Your task to perform on an android device: Go to Android settings Image 0: 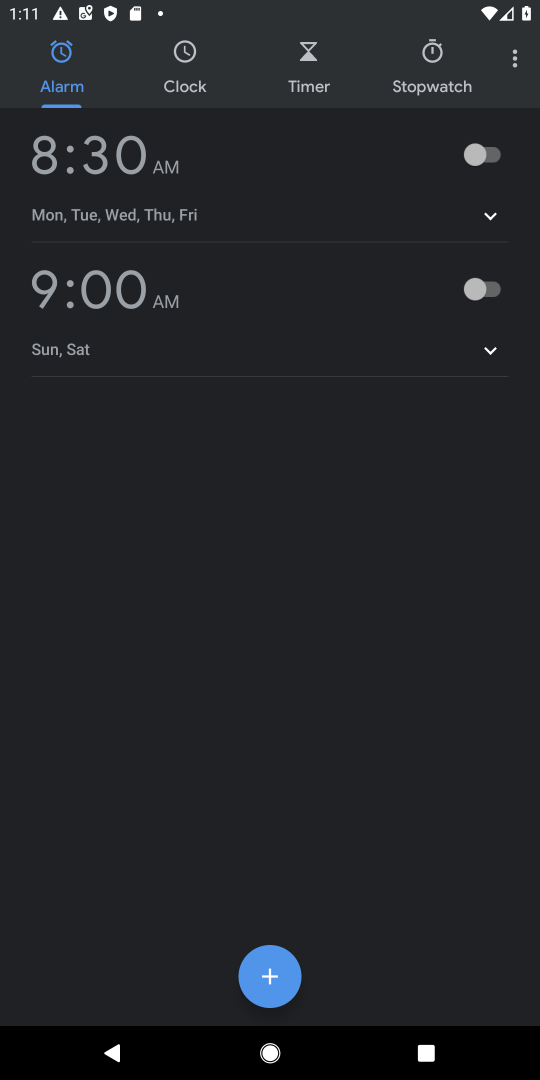
Step 0: press home button
Your task to perform on an android device: Go to Android settings Image 1: 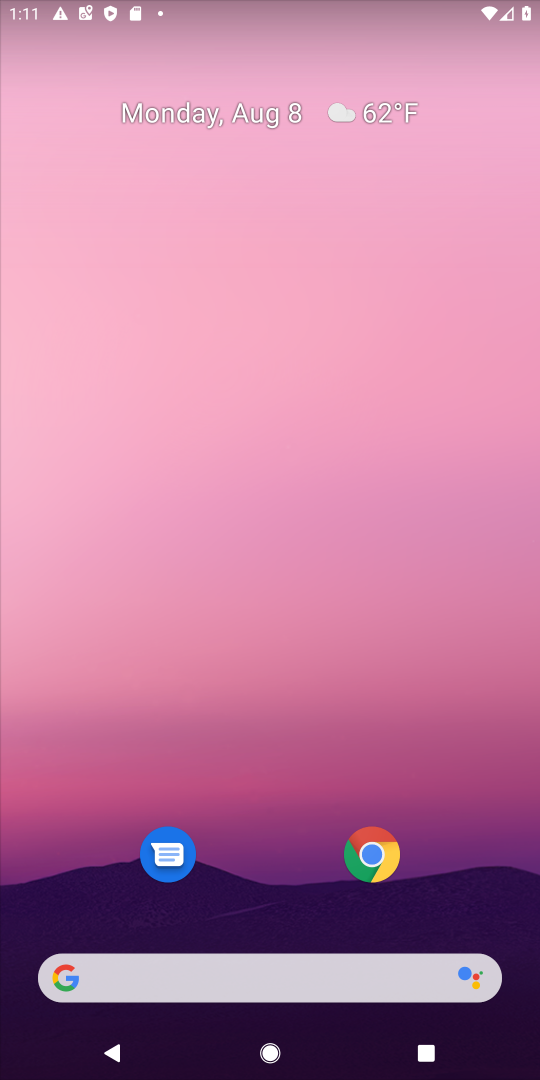
Step 1: drag from (267, 797) to (282, 266)
Your task to perform on an android device: Go to Android settings Image 2: 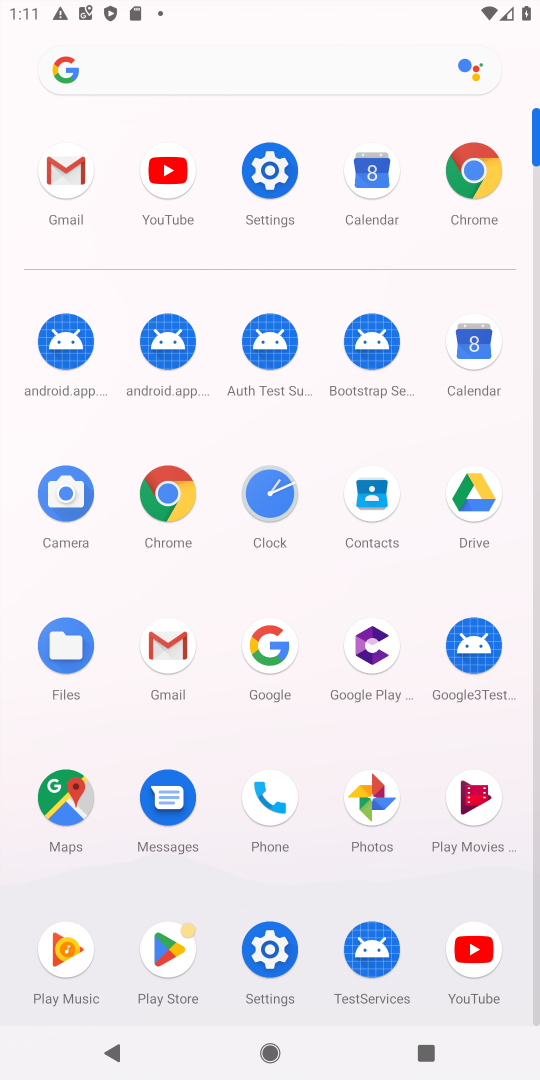
Step 2: click (267, 173)
Your task to perform on an android device: Go to Android settings Image 3: 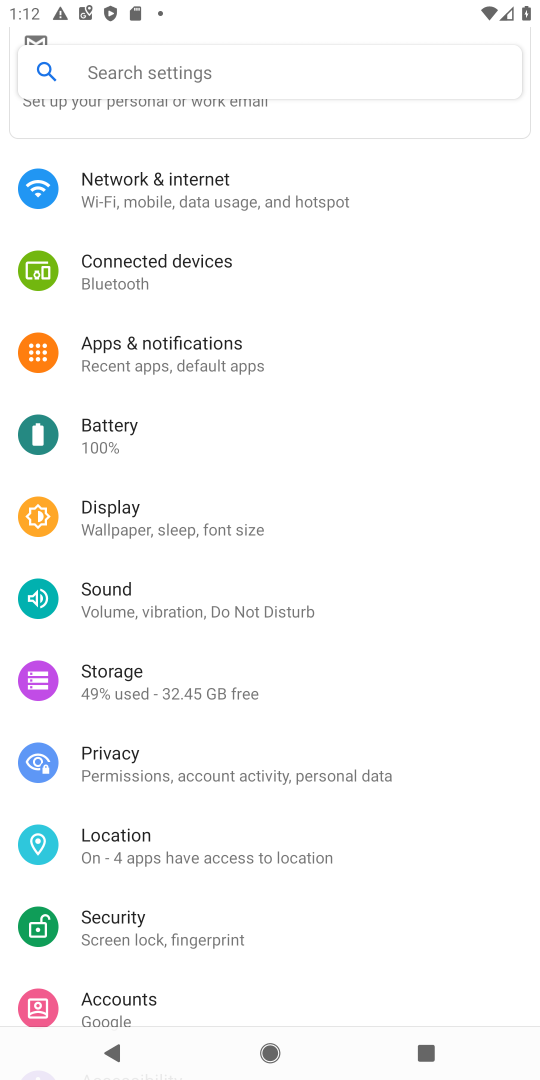
Step 3: task complete